Your task to perform on an android device: stop showing notifications on the lock screen Image 0: 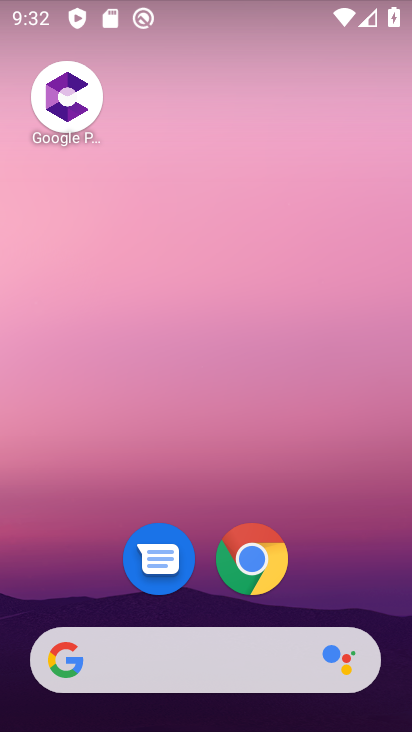
Step 0: drag from (81, 617) to (184, 91)
Your task to perform on an android device: stop showing notifications on the lock screen Image 1: 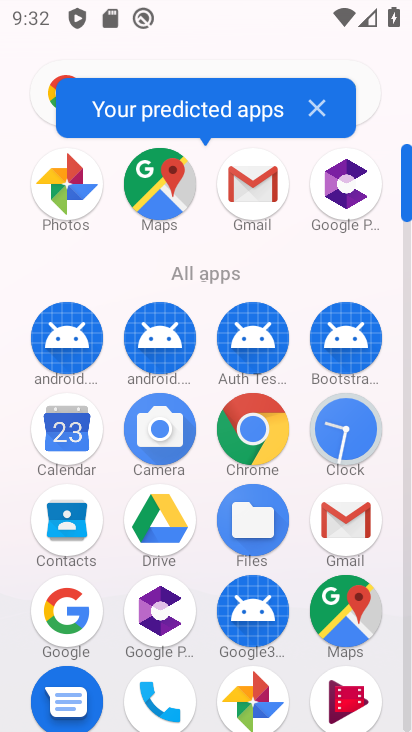
Step 1: drag from (162, 725) to (242, 395)
Your task to perform on an android device: stop showing notifications on the lock screen Image 2: 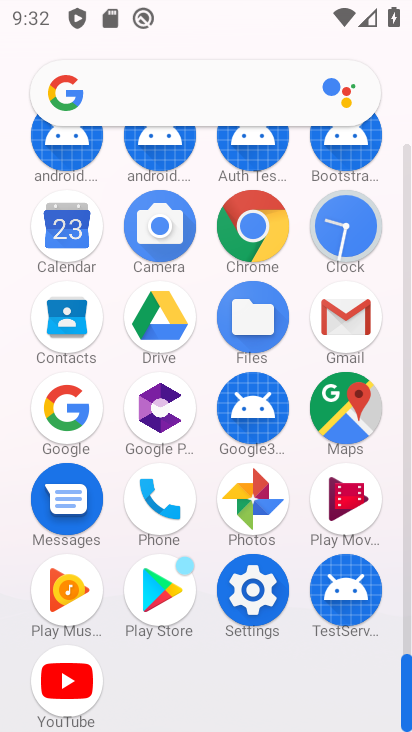
Step 2: click (248, 605)
Your task to perform on an android device: stop showing notifications on the lock screen Image 3: 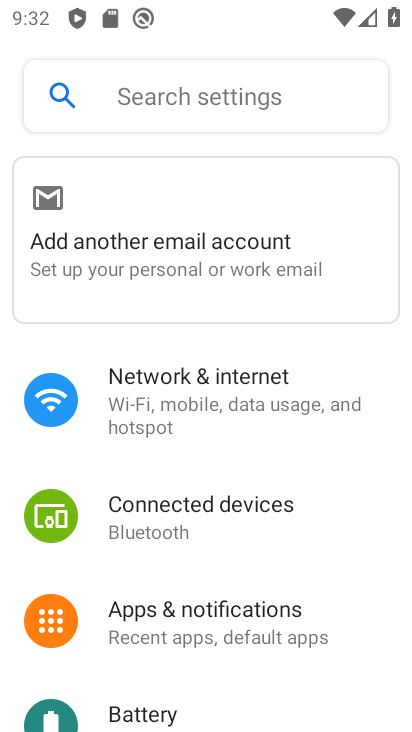
Step 3: drag from (100, 672) to (214, 325)
Your task to perform on an android device: stop showing notifications on the lock screen Image 4: 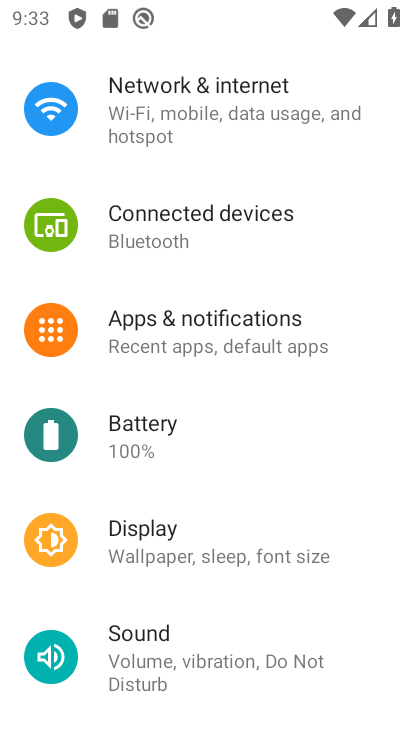
Step 4: click (221, 345)
Your task to perform on an android device: stop showing notifications on the lock screen Image 5: 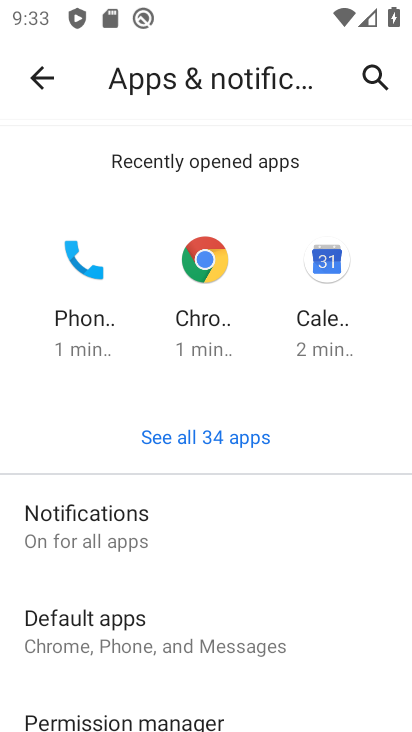
Step 5: click (192, 538)
Your task to perform on an android device: stop showing notifications on the lock screen Image 6: 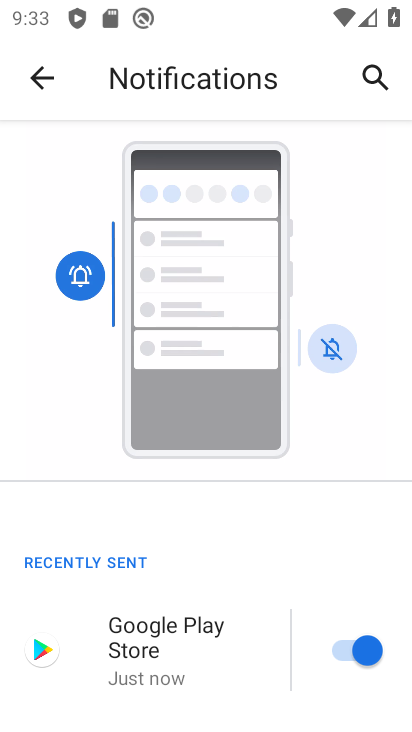
Step 6: drag from (110, 669) to (271, 148)
Your task to perform on an android device: stop showing notifications on the lock screen Image 7: 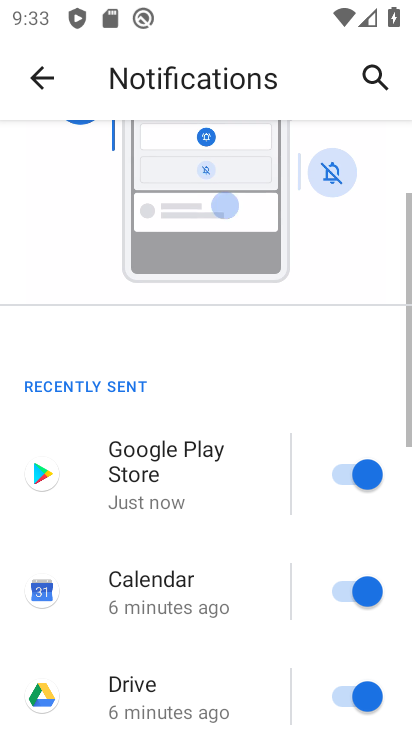
Step 7: drag from (193, 662) to (293, 200)
Your task to perform on an android device: stop showing notifications on the lock screen Image 8: 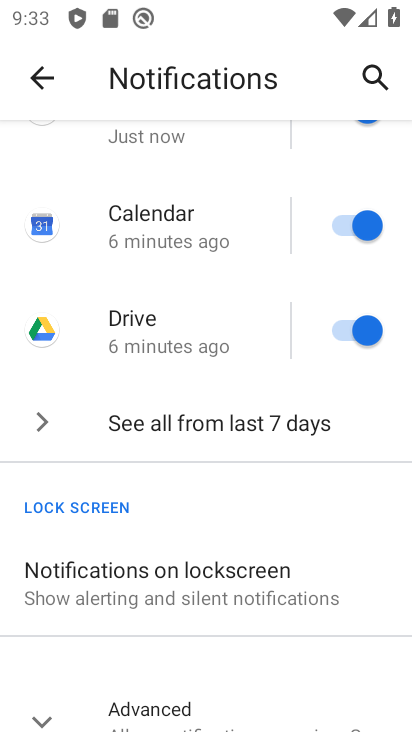
Step 8: click (178, 605)
Your task to perform on an android device: stop showing notifications on the lock screen Image 9: 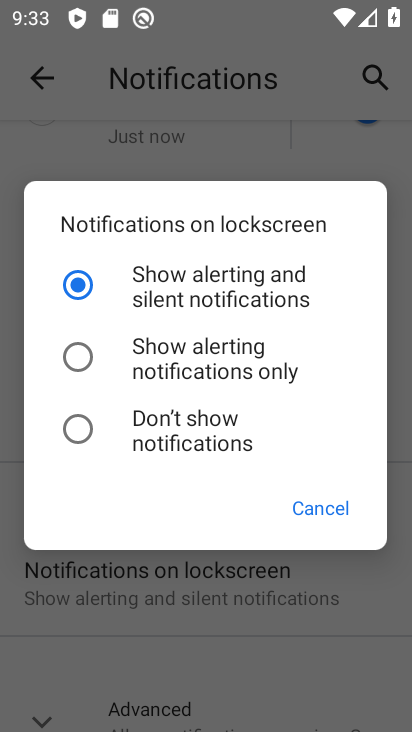
Step 9: click (180, 419)
Your task to perform on an android device: stop showing notifications on the lock screen Image 10: 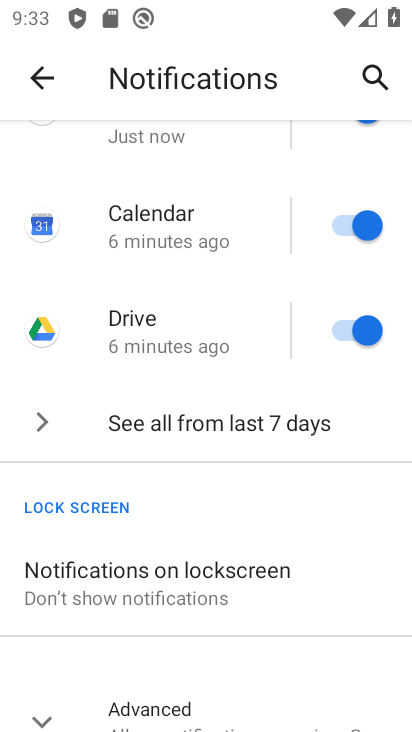
Step 10: task complete